Your task to perform on an android device: turn pop-ups off in chrome Image 0: 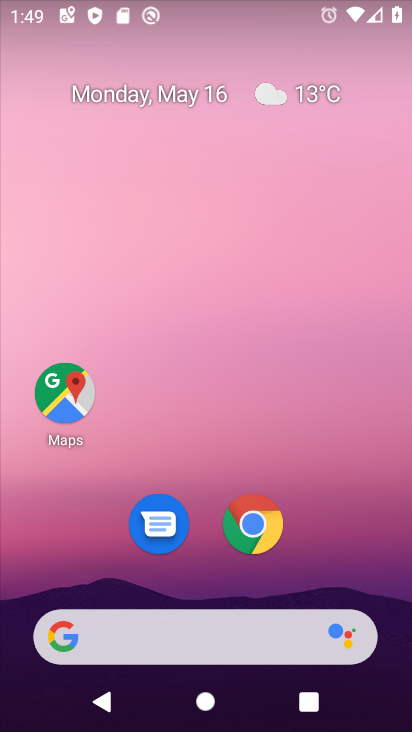
Step 0: click (244, 520)
Your task to perform on an android device: turn pop-ups off in chrome Image 1: 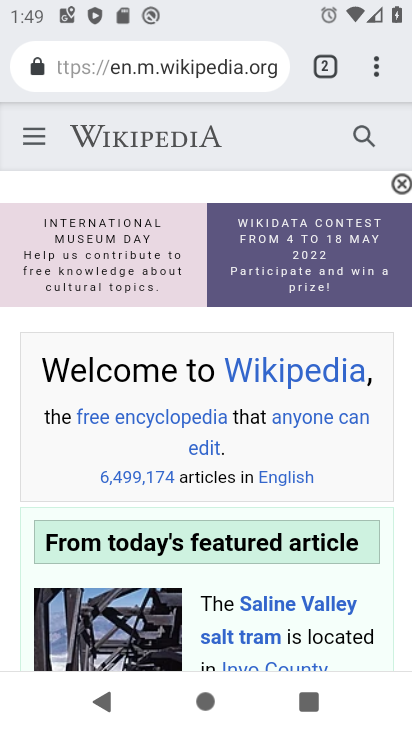
Step 1: click (374, 69)
Your task to perform on an android device: turn pop-ups off in chrome Image 2: 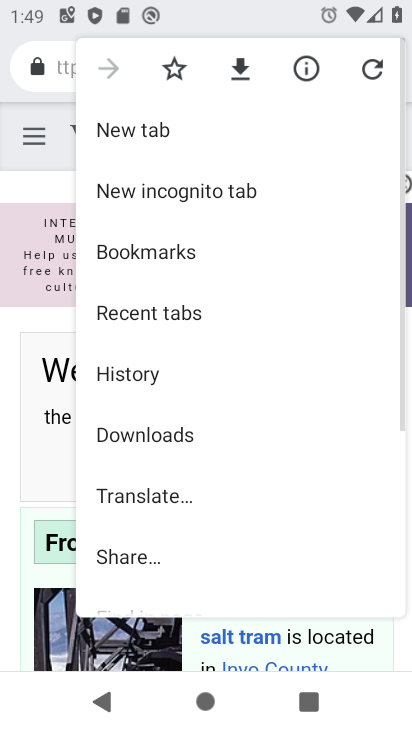
Step 2: drag from (234, 468) to (253, 127)
Your task to perform on an android device: turn pop-ups off in chrome Image 3: 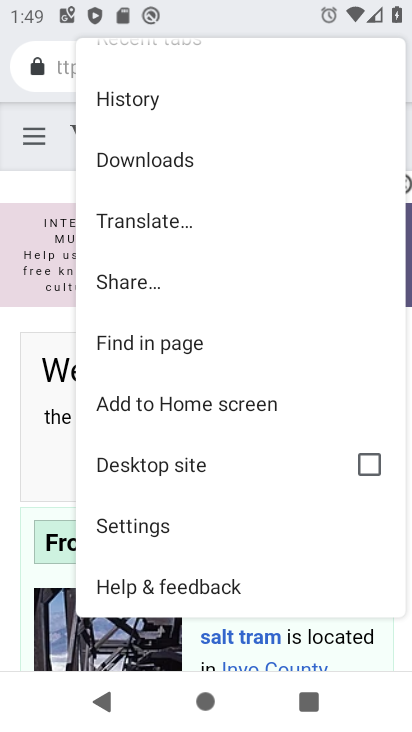
Step 3: click (138, 519)
Your task to perform on an android device: turn pop-ups off in chrome Image 4: 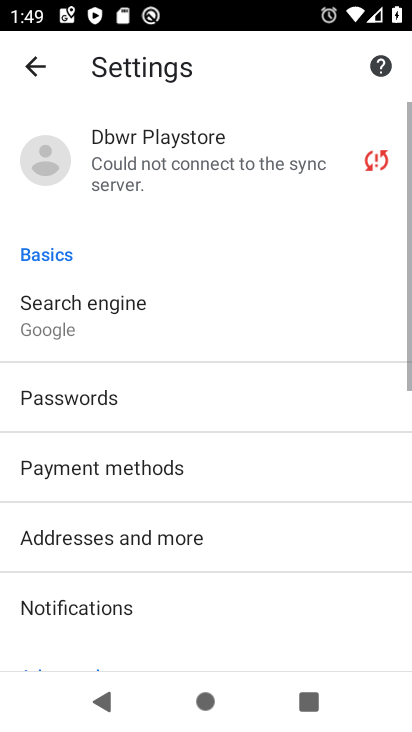
Step 4: drag from (261, 558) to (268, 222)
Your task to perform on an android device: turn pop-ups off in chrome Image 5: 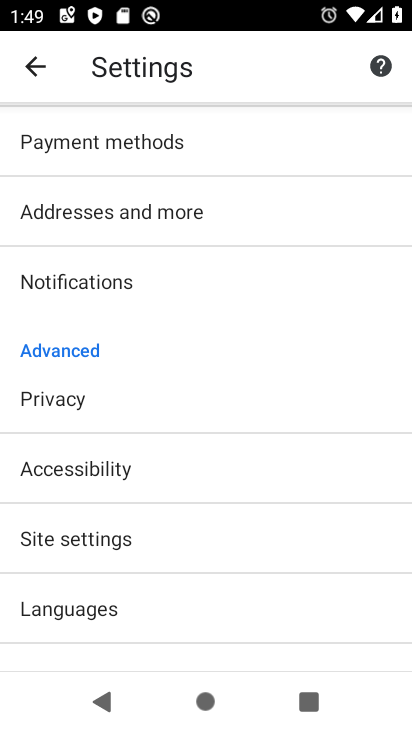
Step 5: click (198, 538)
Your task to perform on an android device: turn pop-ups off in chrome Image 6: 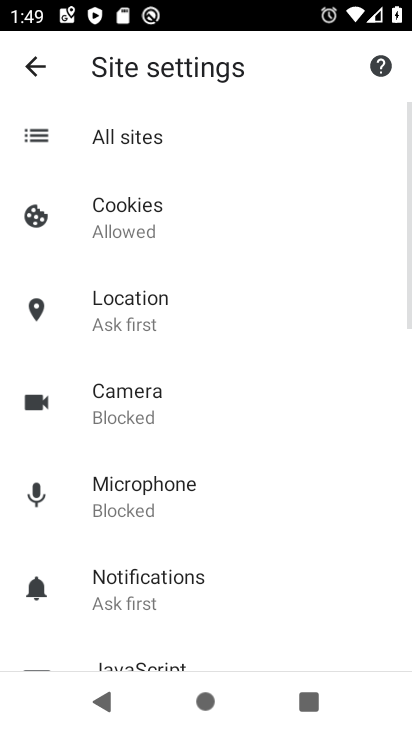
Step 6: drag from (242, 523) to (253, 225)
Your task to perform on an android device: turn pop-ups off in chrome Image 7: 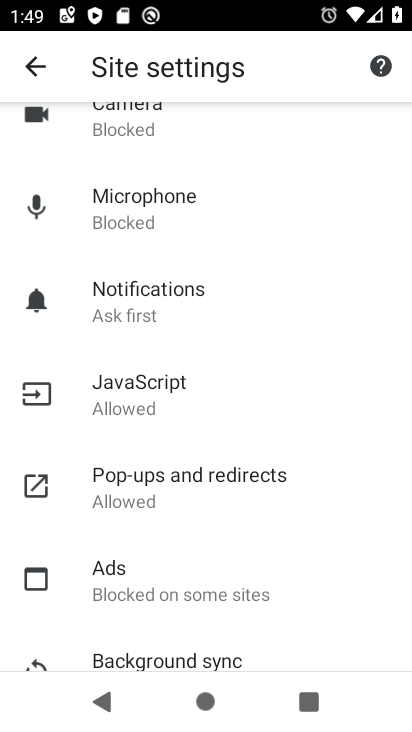
Step 7: click (232, 469)
Your task to perform on an android device: turn pop-ups off in chrome Image 8: 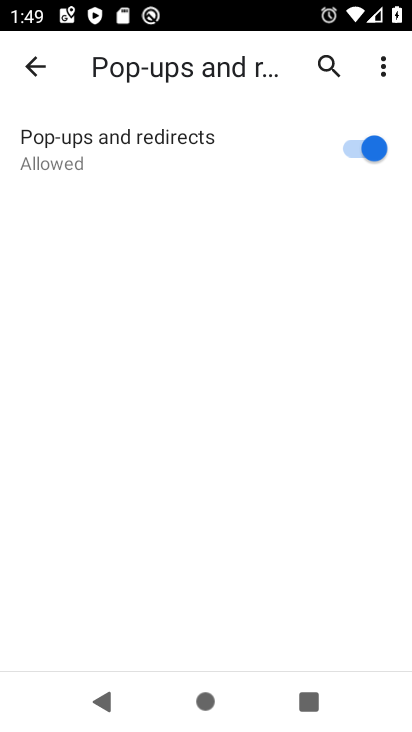
Step 8: click (353, 139)
Your task to perform on an android device: turn pop-ups off in chrome Image 9: 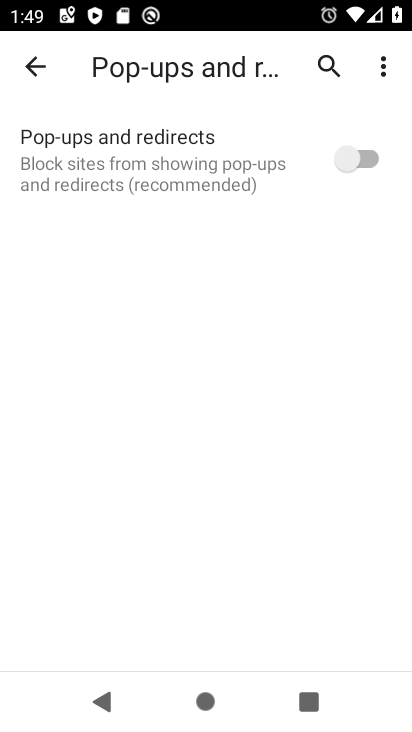
Step 9: task complete